Your task to perform on an android device: turn pop-ups off in chrome Image 0: 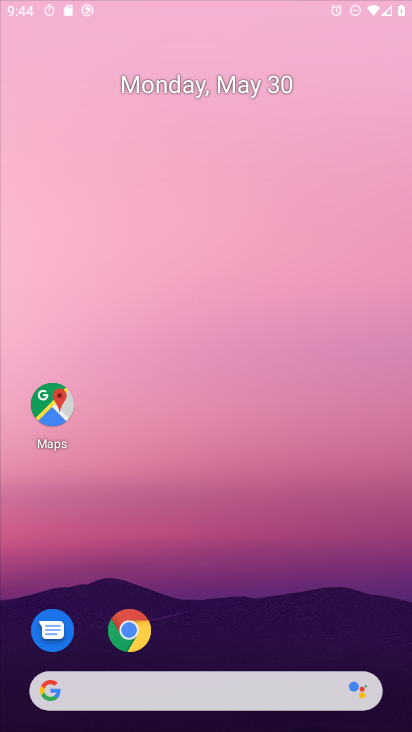
Step 0: click (260, 41)
Your task to perform on an android device: turn pop-ups off in chrome Image 1: 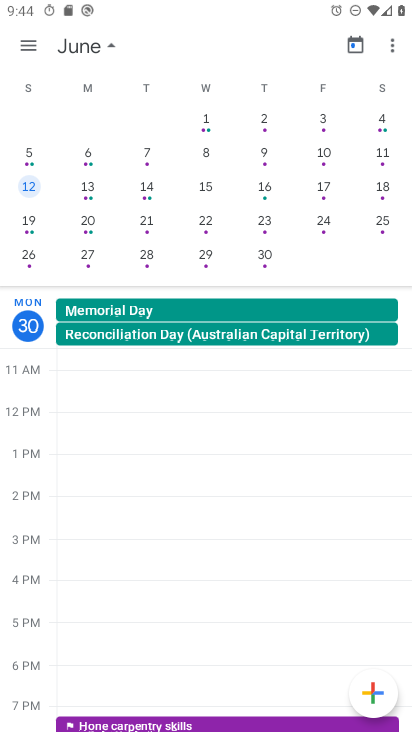
Step 1: press home button
Your task to perform on an android device: turn pop-ups off in chrome Image 2: 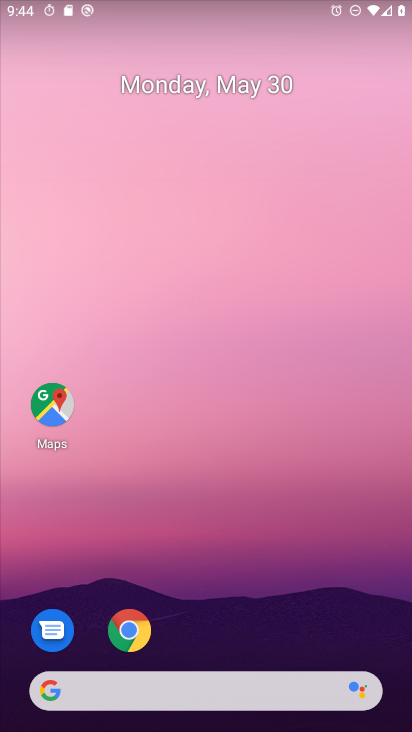
Step 2: drag from (328, 644) to (155, 37)
Your task to perform on an android device: turn pop-ups off in chrome Image 3: 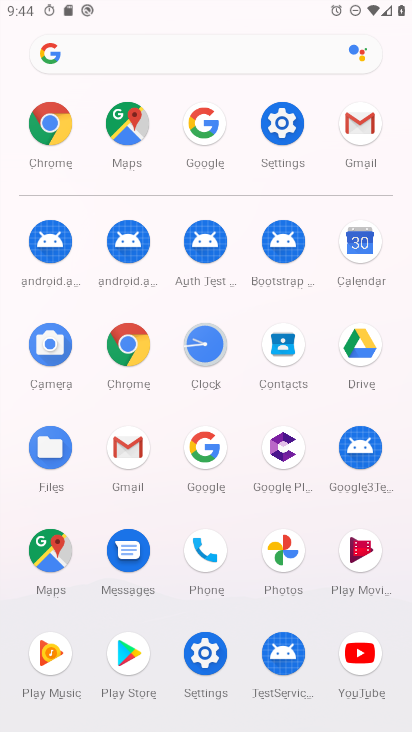
Step 3: click (62, 130)
Your task to perform on an android device: turn pop-ups off in chrome Image 4: 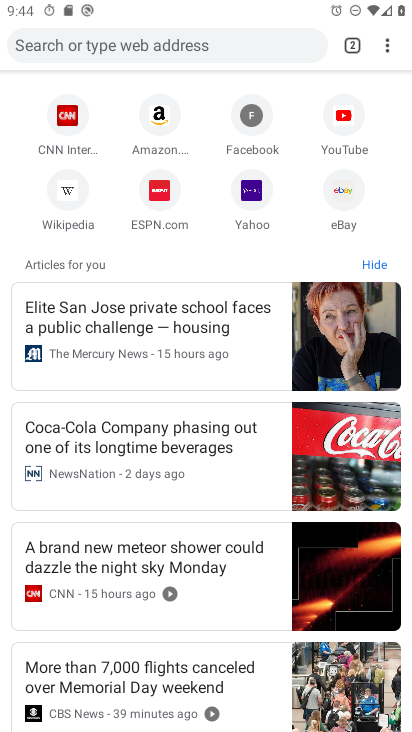
Step 4: click (384, 39)
Your task to perform on an android device: turn pop-ups off in chrome Image 5: 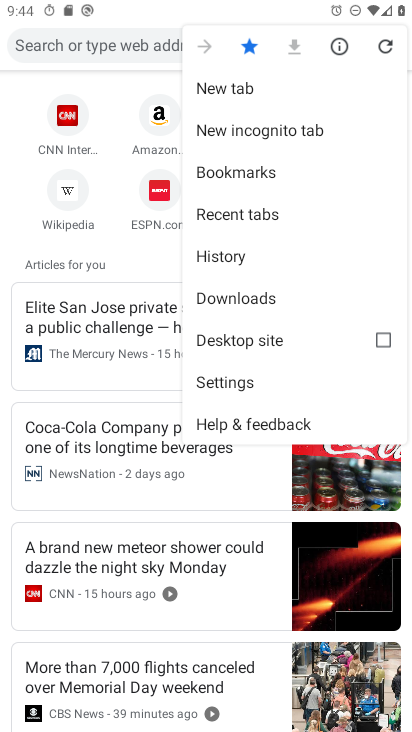
Step 5: click (248, 382)
Your task to perform on an android device: turn pop-ups off in chrome Image 6: 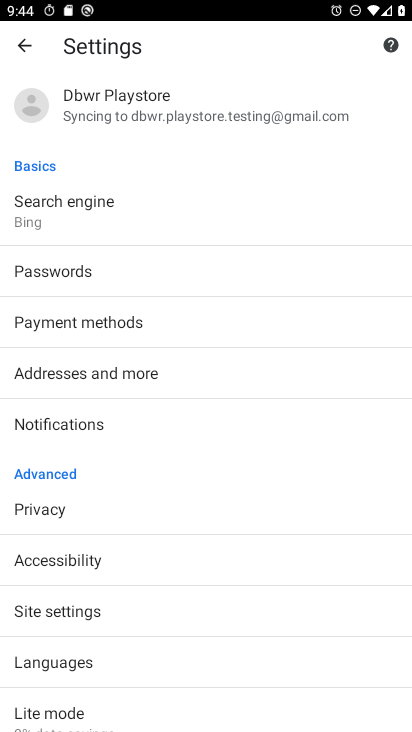
Step 6: click (134, 622)
Your task to perform on an android device: turn pop-ups off in chrome Image 7: 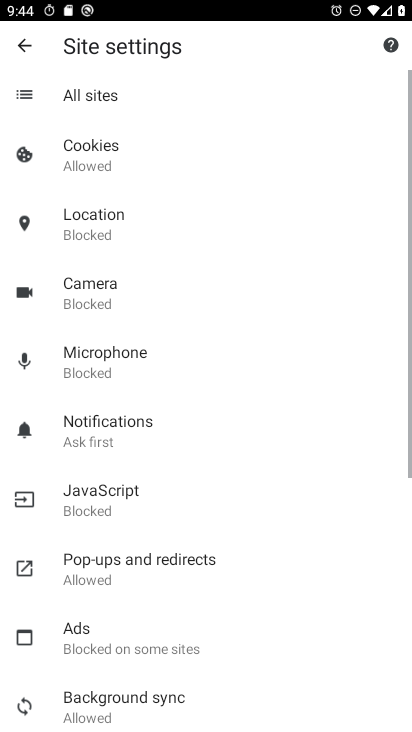
Step 7: click (154, 571)
Your task to perform on an android device: turn pop-ups off in chrome Image 8: 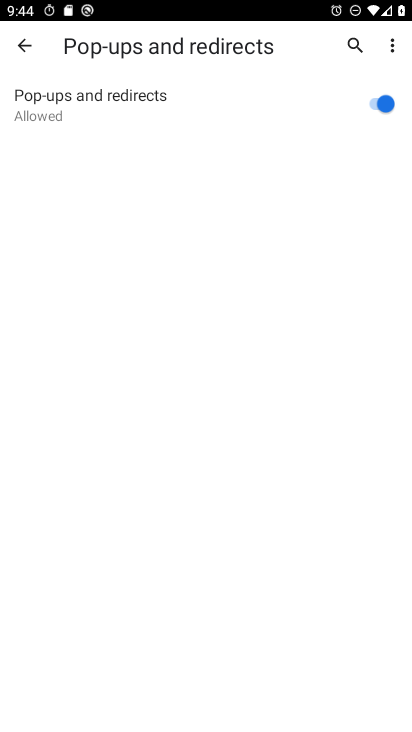
Step 8: click (330, 111)
Your task to perform on an android device: turn pop-ups off in chrome Image 9: 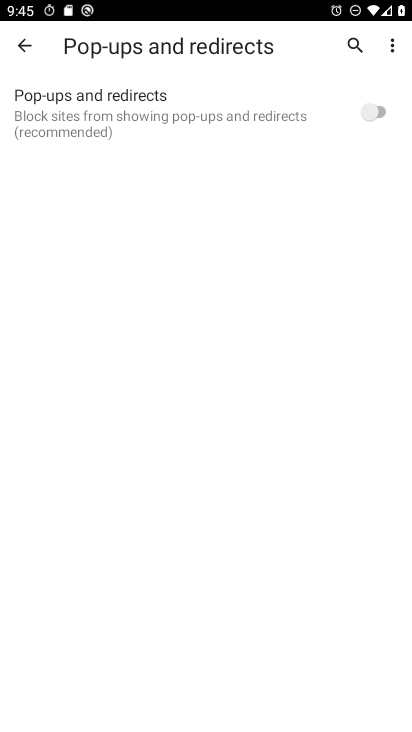
Step 9: task complete